Your task to perform on an android device: Open Maps and search for coffee Image 0: 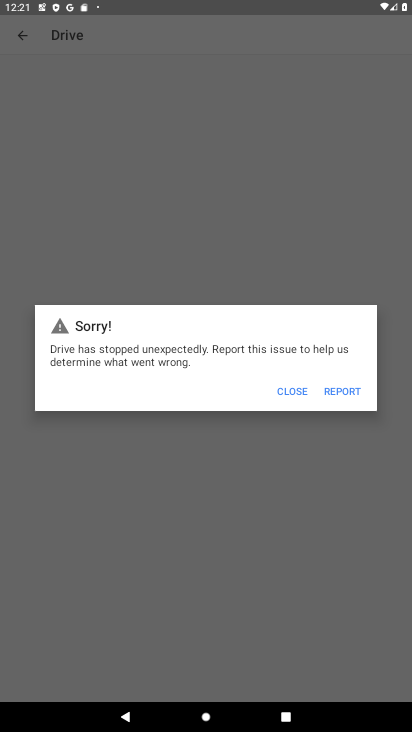
Step 0: press home button
Your task to perform on an android device: Open Maps and search for coffee Image 1: 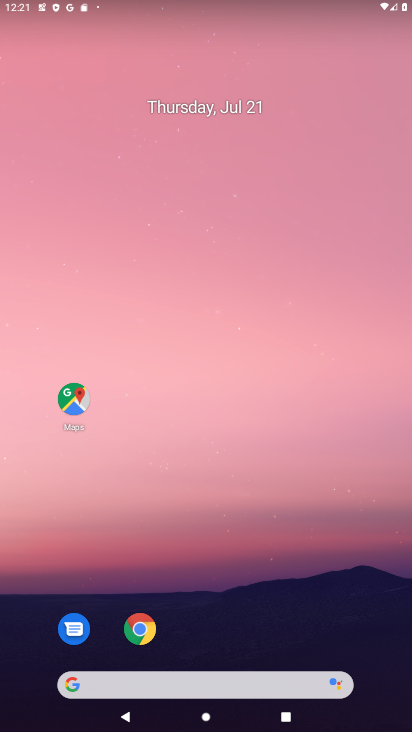
Step 1: drag from (324, 610) to (330, 192)
Your task to perform on an android device: Open Maps and search for coffee Image 2: 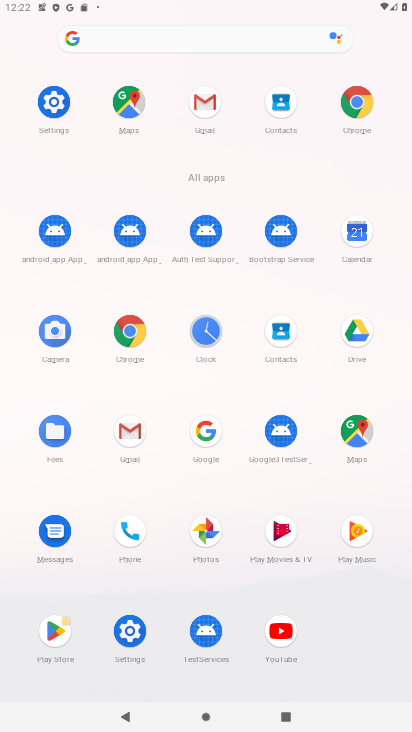
Step 2: click (359, 429)
Your task to perform on an android device: Open Maps and search for coffee Image 3: 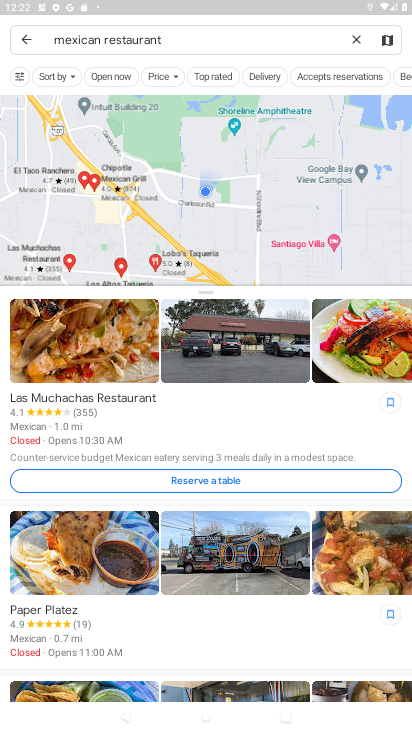
Step 3: press back button
Your task to perform on an android device: Open Maps and search for coffee Image 4: 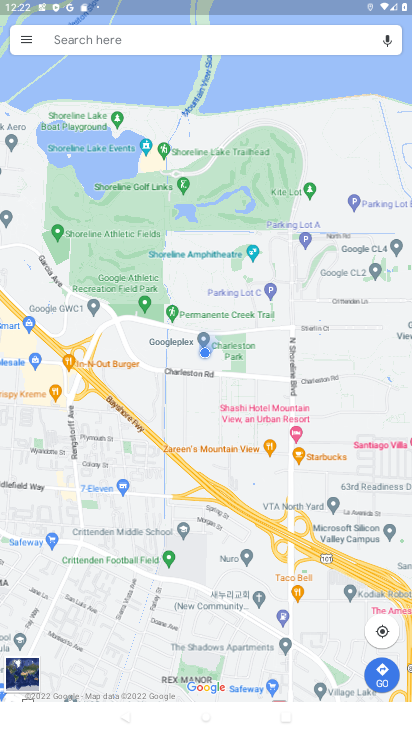
Step 4: click (282, 39)
Your task to perform on an android device: Open Maps and search for coffee Image 5: 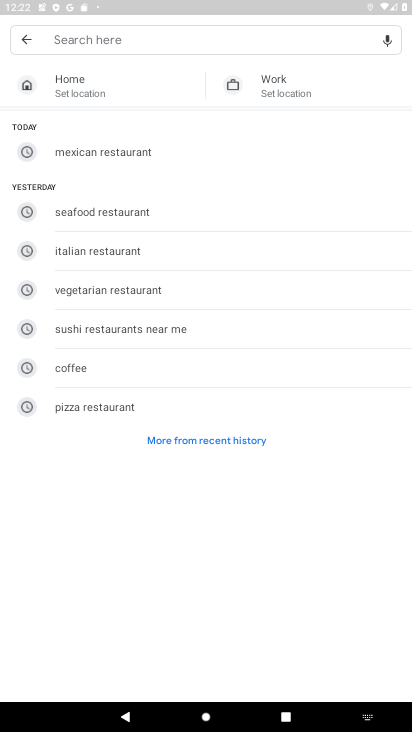
Step 5: type "coffee"
Your task to perform on an android device: Open Maps and search for coffee Image 6: 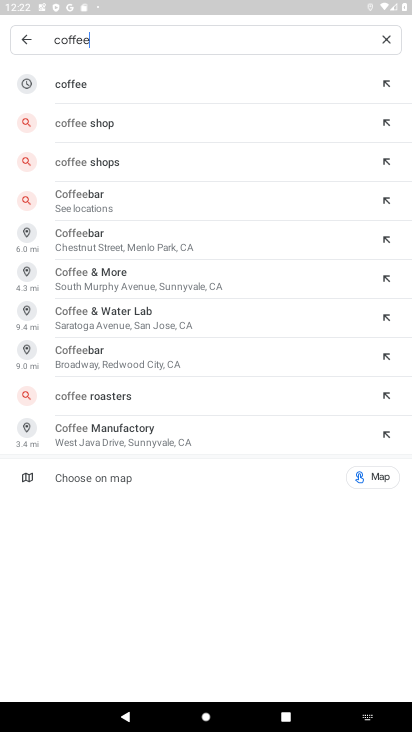
Step 6: click (107, 81)
Your task to perform on an android device: Open Maps and search for coffee Image 7: 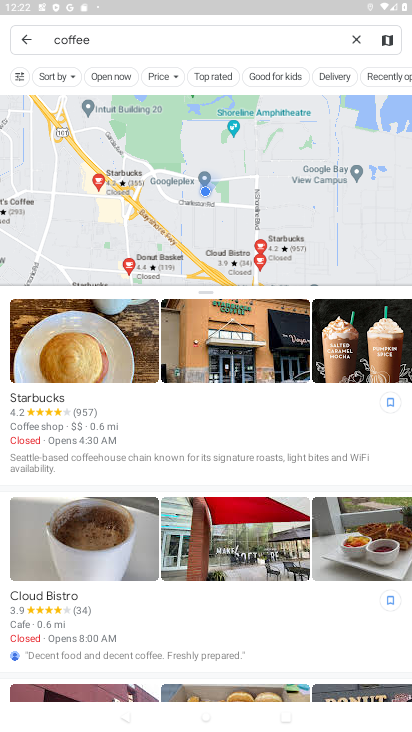
Step 7: task complete